Your task to perform on an android device: empty trash in the gmail app Image 0: 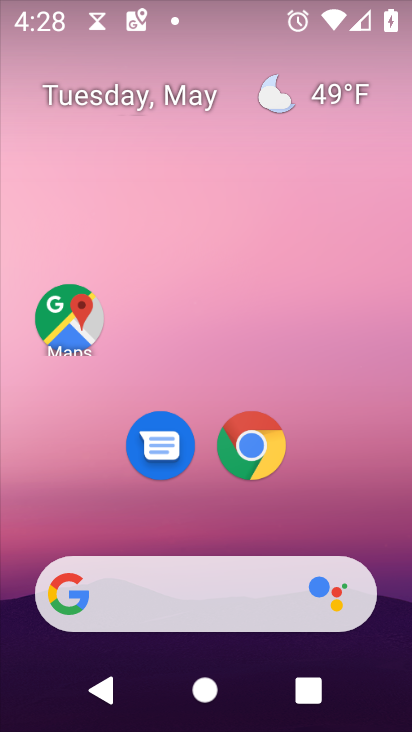
Step 0: drag from (306, 548) to (359, 3)
Your task to perform on an android device: empty trash in the gmail app Image 1: 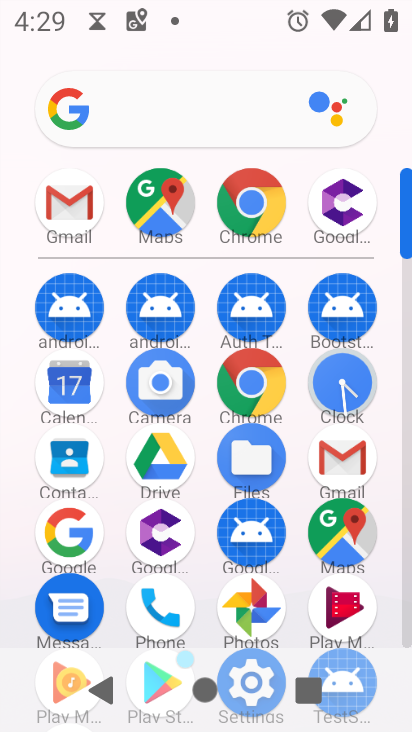
Step 1: click (336, 436)
Your task to perform on an android device: empty trash in the gmail app Image 2: 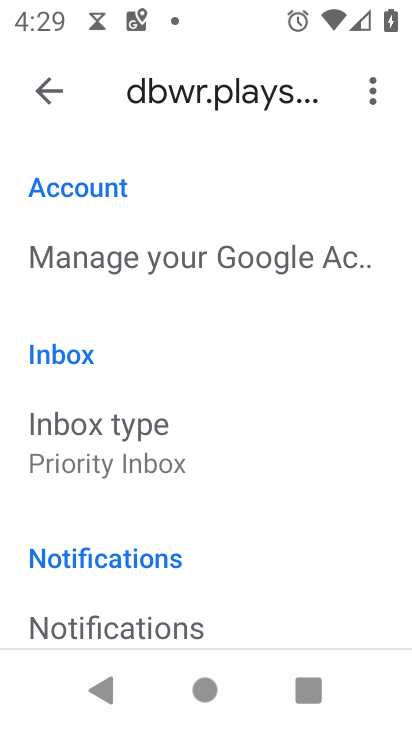
Step 2: press back button
Your task to perform on an android device: empty trash in the gmail app Image 3: 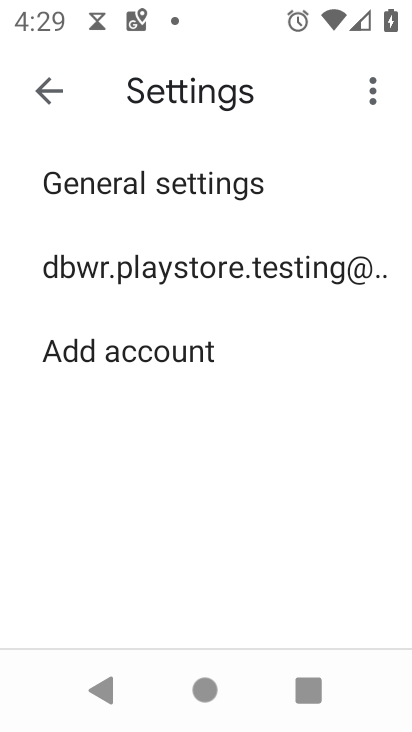
Step 3: press back button
Your task to perform on an android device: empty trash in the gmail app Image 4: 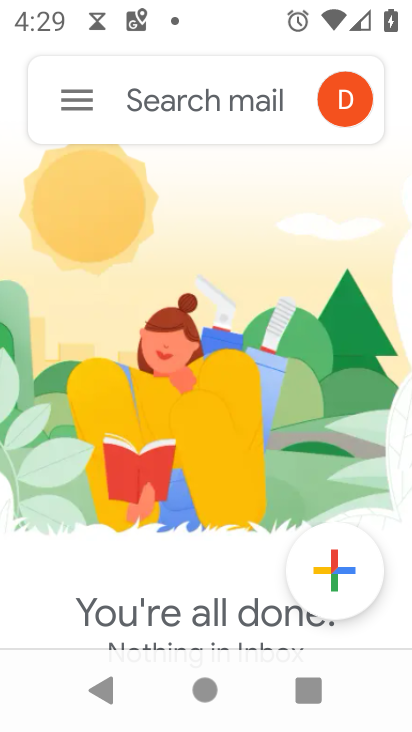
Step 4: click (69, 99)
Your task to perform on an android device: empty trash in the gmail app Image 5: 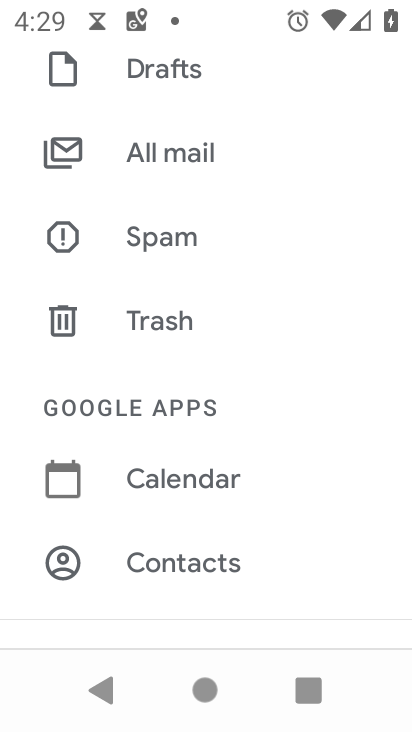
Step 5: click (186, 326)
Your task to perform on an android device: empty trash in the gmail app Image 6: 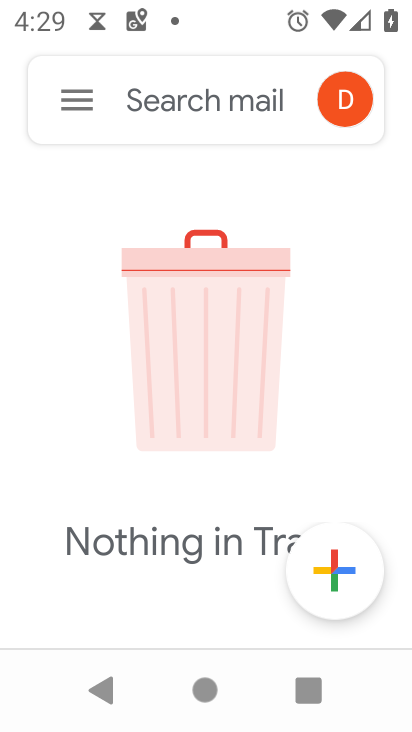
Step 6: task complete